Your task to perform on an android device: See recent photos Image 0: 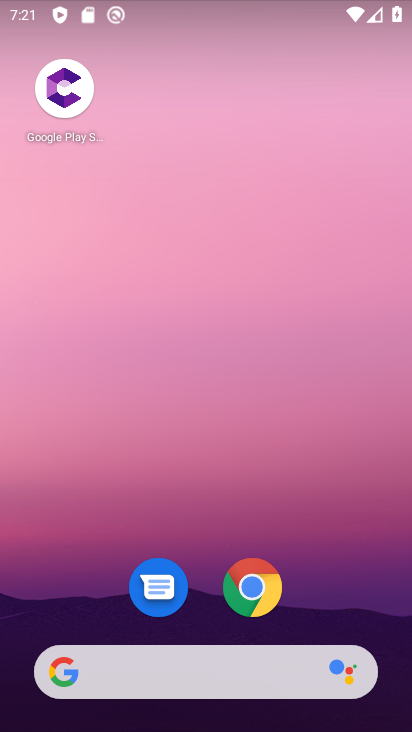
Step 0: drag from (318, 598) to (346, 72)
Your task to perform on an android device: See recent photos Image 1: 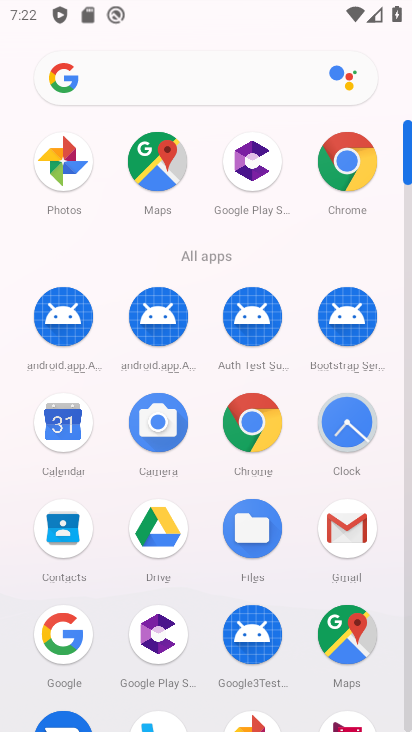
Step 1: click (259, 730)
Your task to perform on an android device: See recent photos Image 2: 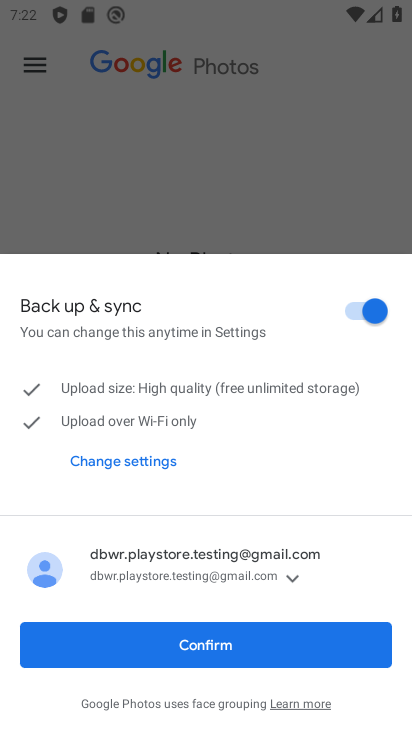
Step 2: click (190, 652)
Your task to perform on an android device: See recent photos Image 3: 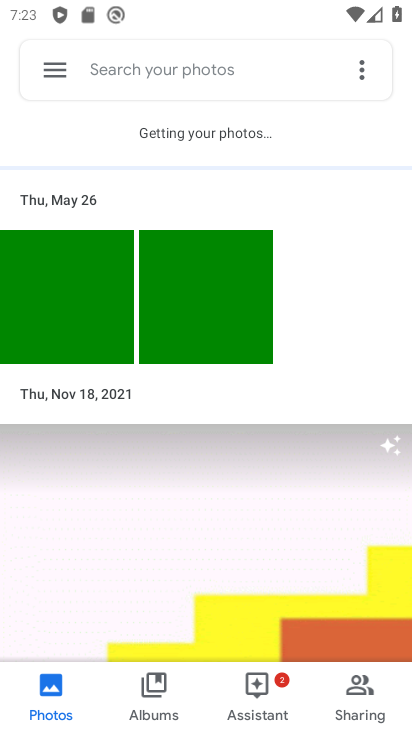
Step 3: task complete